Your task to perform on an android device: turn on location history Image 0: 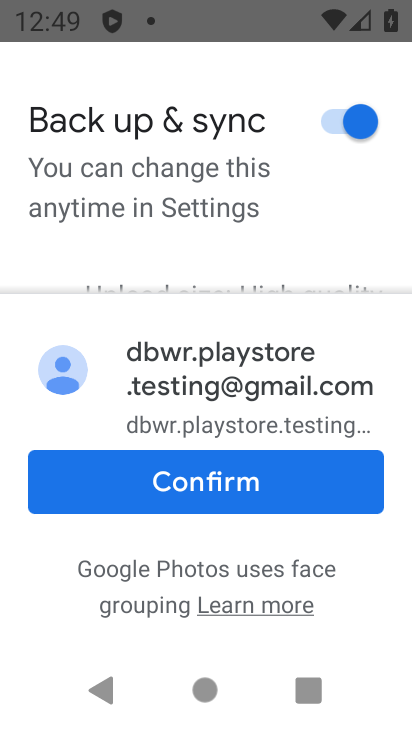
Step 0: press home button
Your task to perform on an android device: turn on location history Image 1: 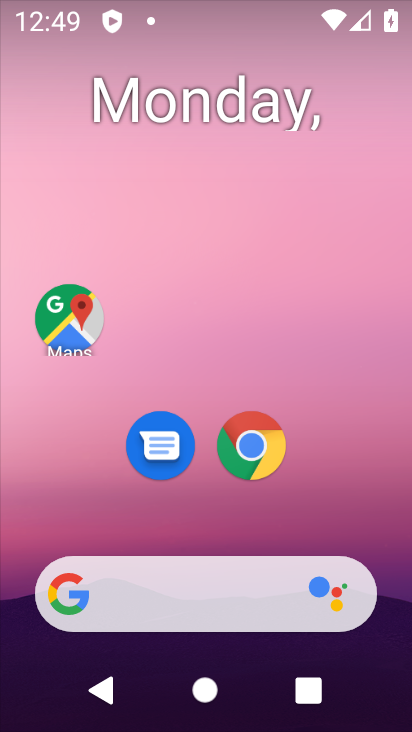
Step 1: drag from (389, 642) to (244, 169)
Your task to perform on an android device: turn on location history Image 2: 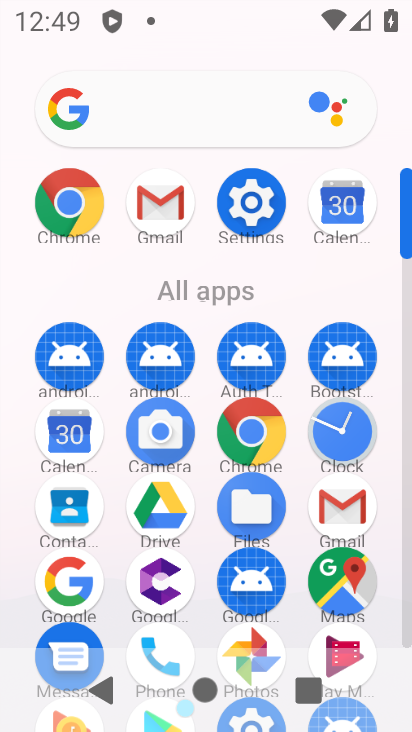
Step 2: click (406, 623)
Your task to perform on an android device: turn on location history Image 3: 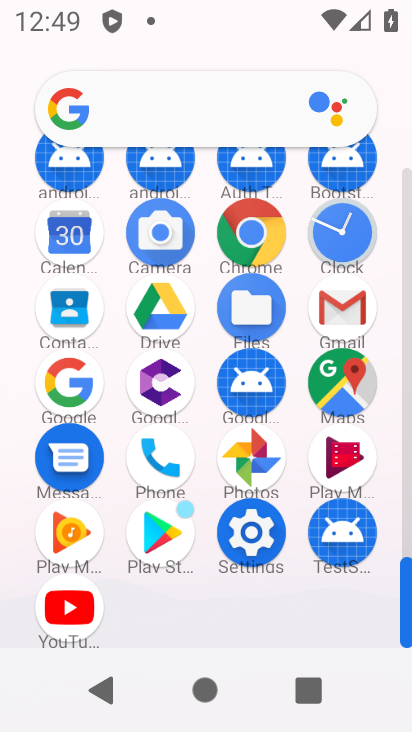
Step 3: click (343, 387)
Your task to perform on an android device: turn on location history Image 4: 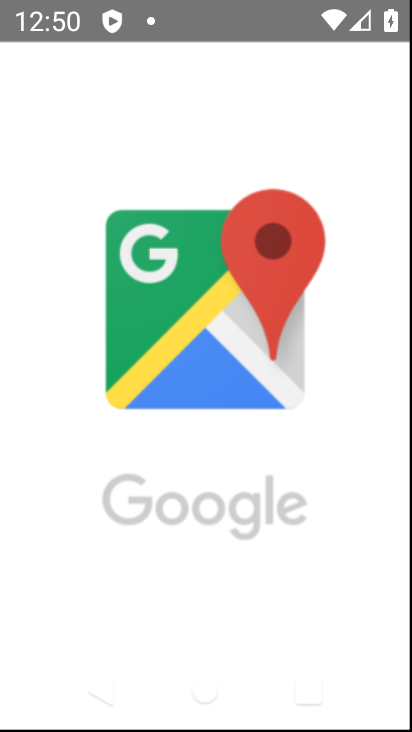
Step 4: task complete